Your task to perform on an android device: open app "Lyft - Rideshare, Bikes, Scooters & Transit" (install if not already installed), go to login, and select forgot password Image 0: 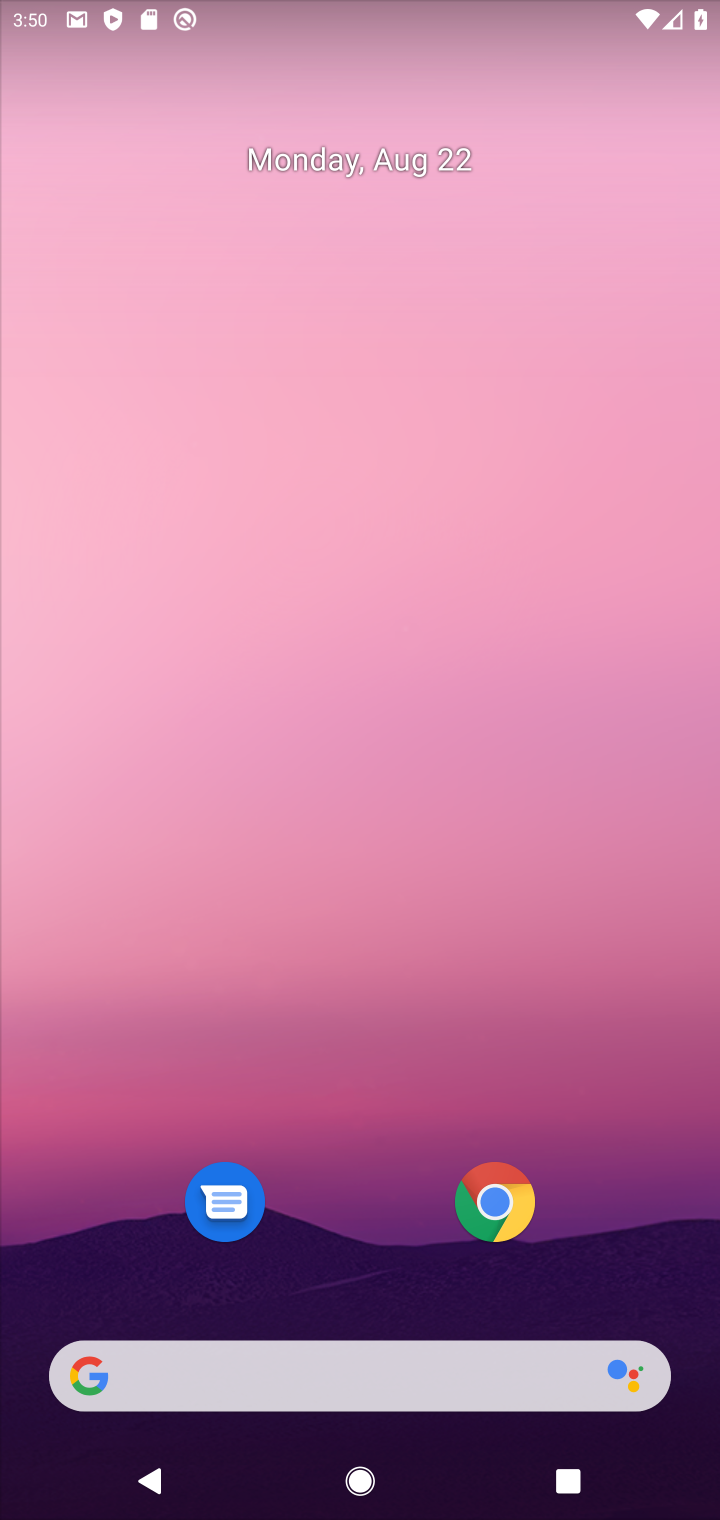
Step 0: drag from (306, 914) to (474, 116)
Your task to perform on an android device: open app "Lyft - Rideshare, Bikes, Scooters & Transit" (install if not already installed), go to login, and select forgot password Image 1: 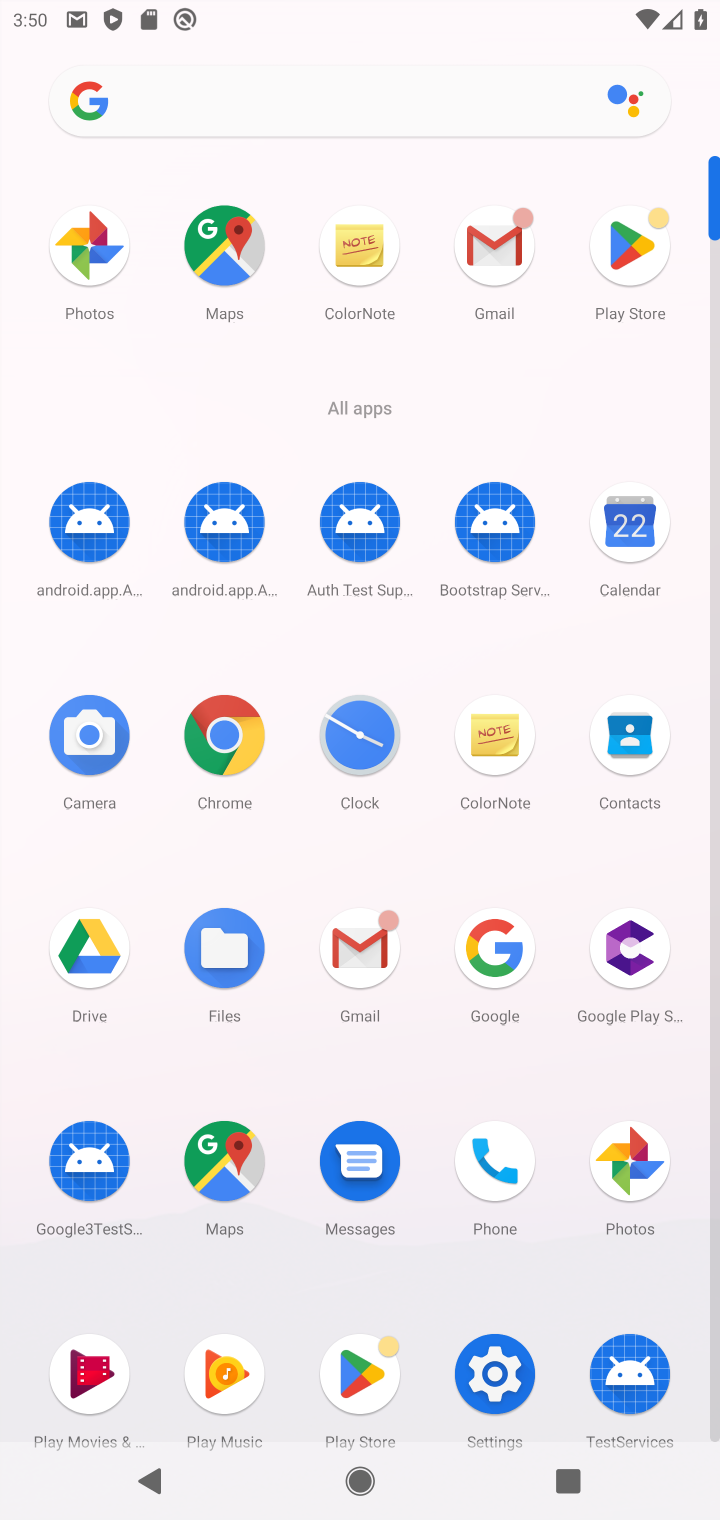
Step 1: click (616, 262)
Your task to perform on an android device: open app "Lyft - Rideshare, Bikes, Scooters & Transit" (install if not already installed), go to login, and select forgot password Image 2: 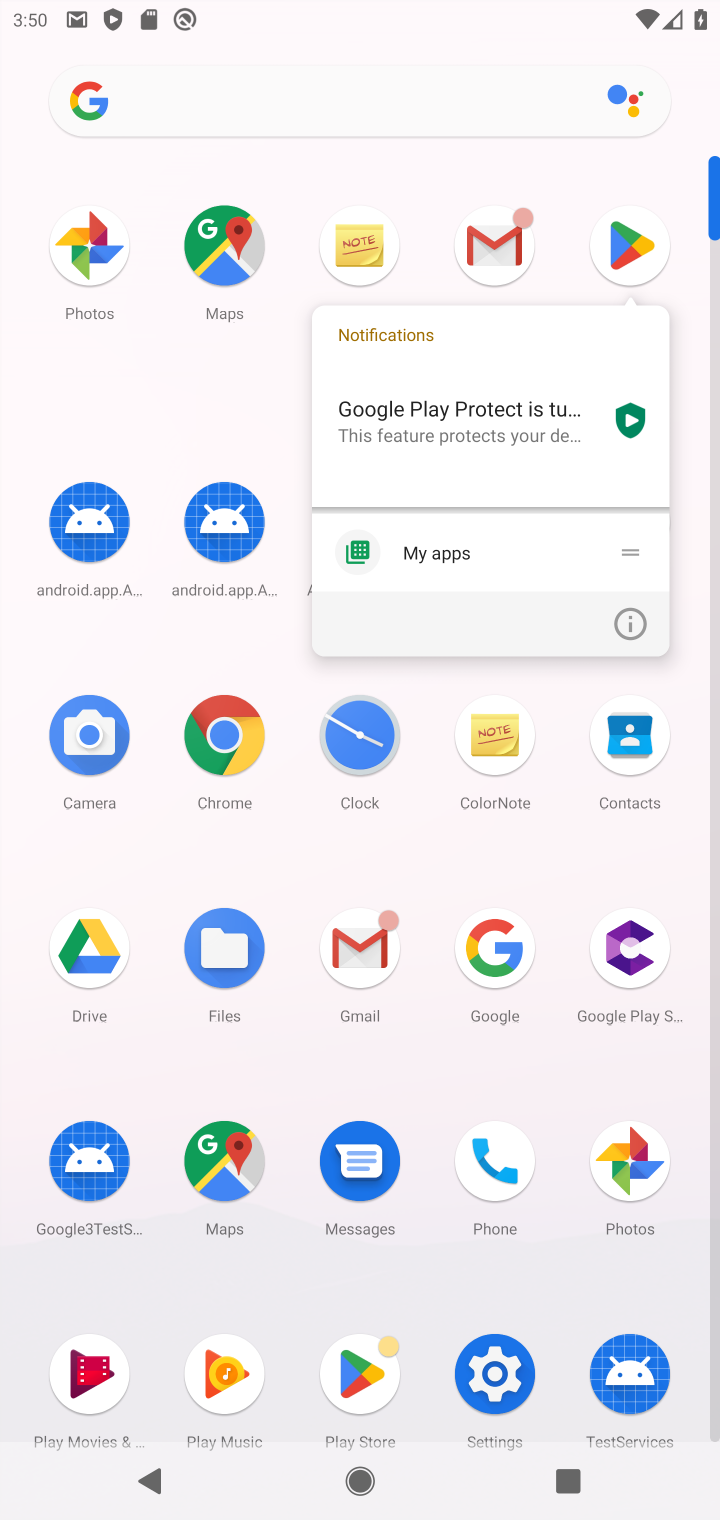
Step 2: click (610, 244)
Your task to perform on an android device: open app "Lyft - Rideshare, Bikes, Scooters & Transit" (install if not already installed), go to login, and select forgot password Image 3: 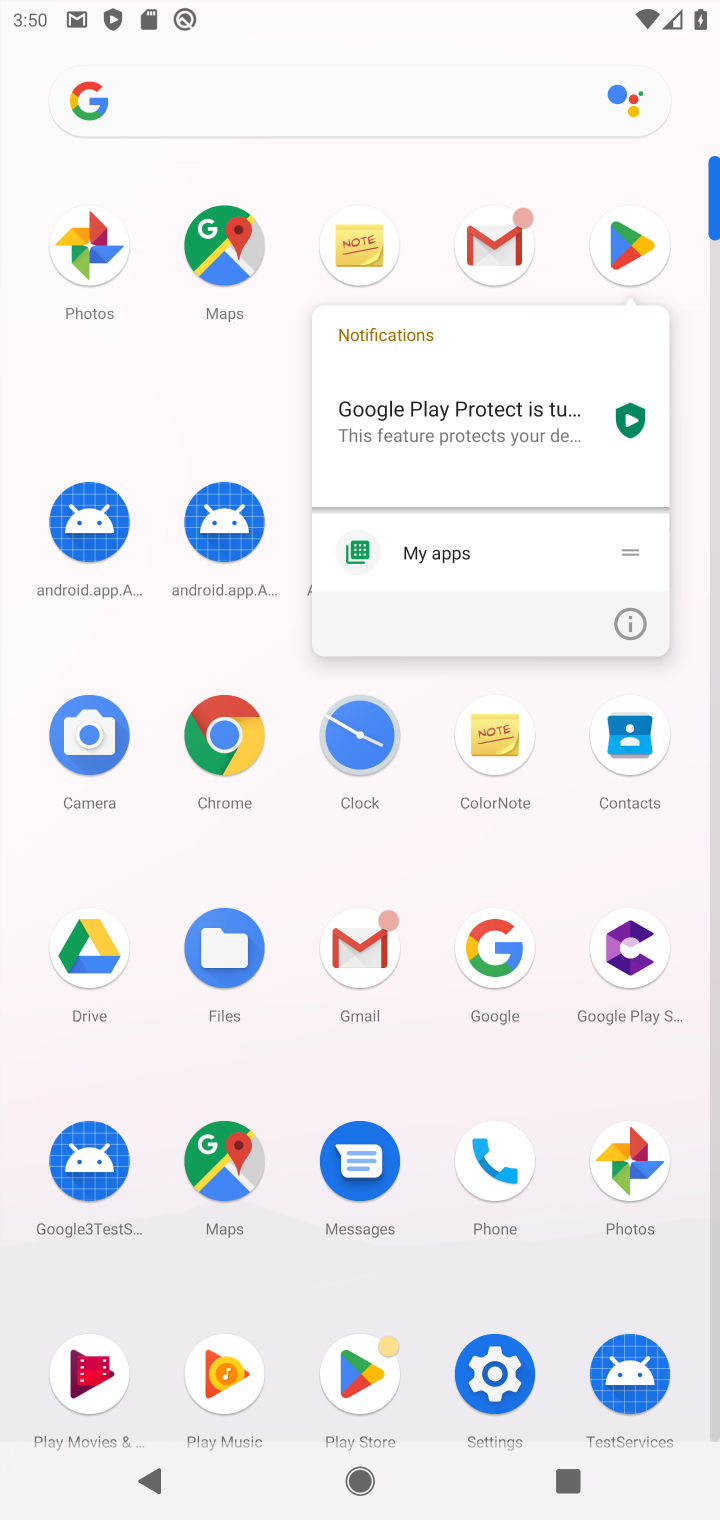
Step 3: click (610, 244)
Your task to perform on an android device: open app "Lyft - Rideshare, Bikes, Scooters & Transit" (install if not already installed), go to login, and select forgot password Image 4: 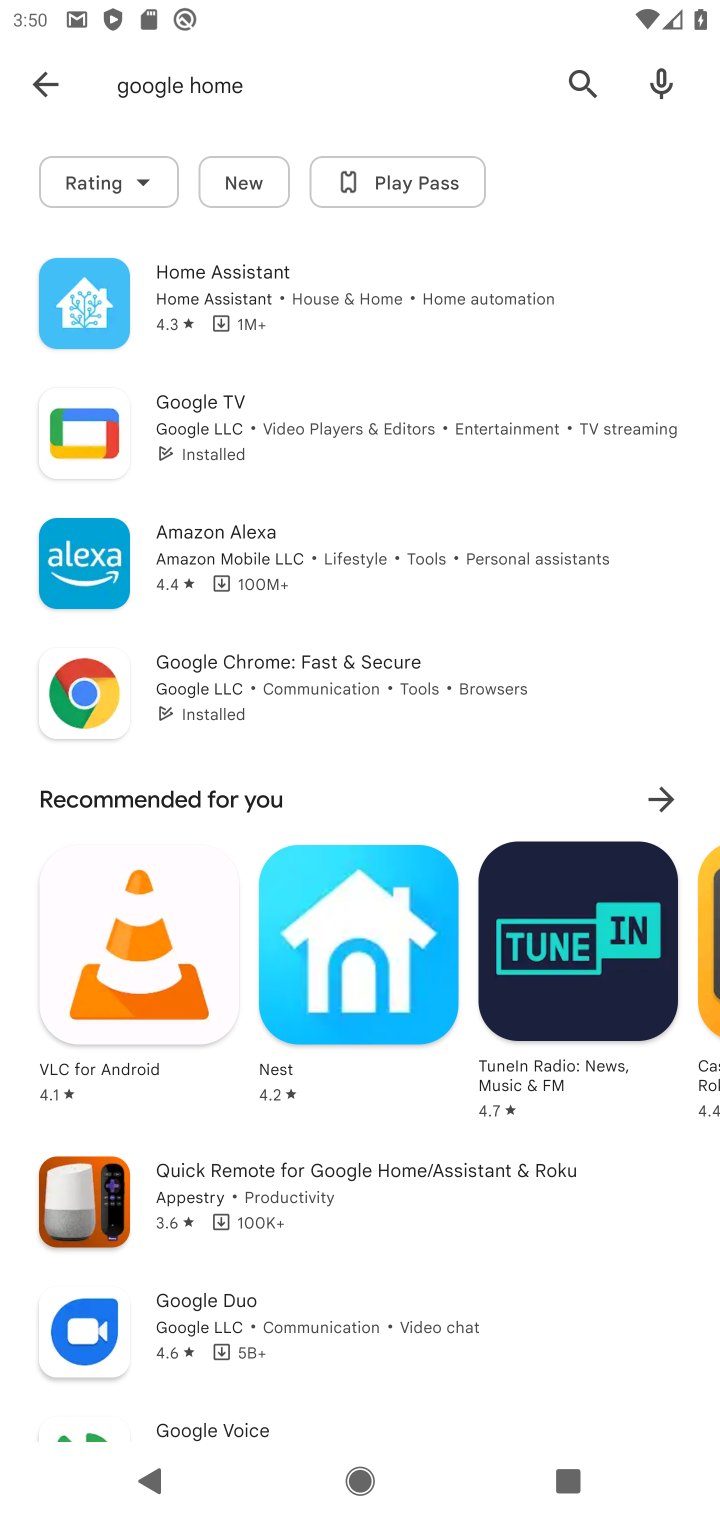
Step 4: click (350, 110)
Your task to perform on an android device: open app "Lyft - Rideshare, Bikes, Scooters & Transit" (install if not already installed), go to login, and select forgot password Image 5: 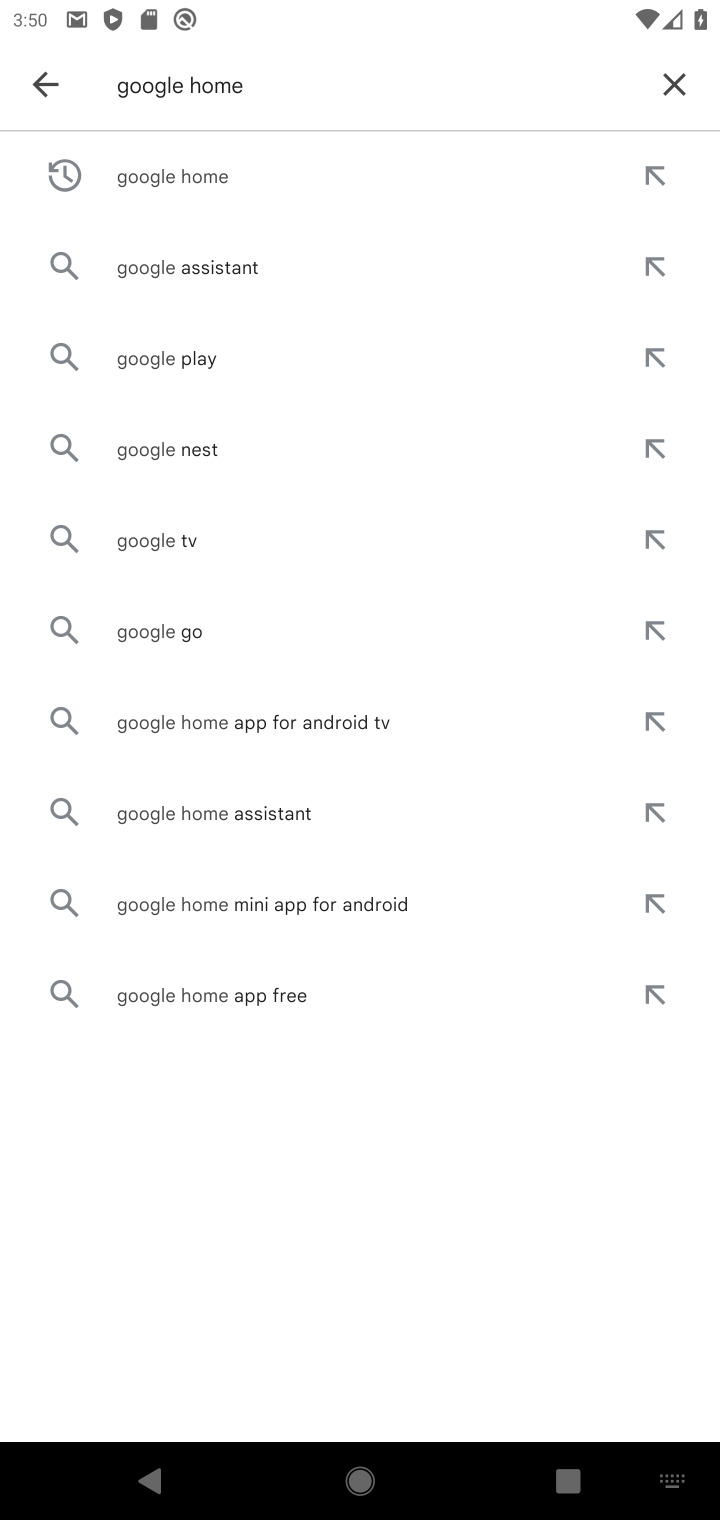
Step 5: click (677, 72)
Your task to perform on an android device: open app "Lyft - Rideshare, Bikes, Scooters & Transit" (install if not already installed), go to login, and select forgot password Image 6: 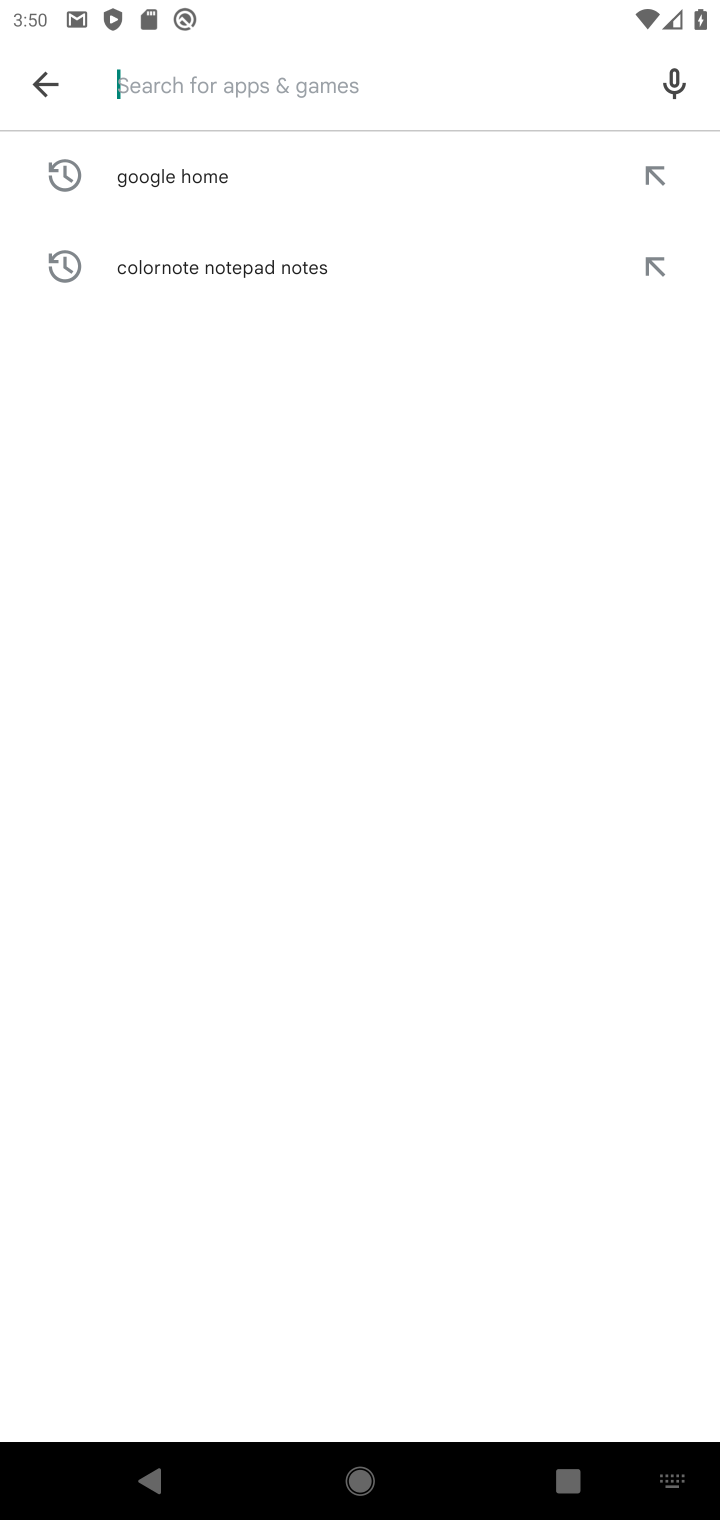
Step 6: type "lyft"
Your task to perform on an android device: open app "Lyft - Rideshare, Bikes, Scooters & Transit" (install if not already installed), go to login, and select forgot password Image 7: 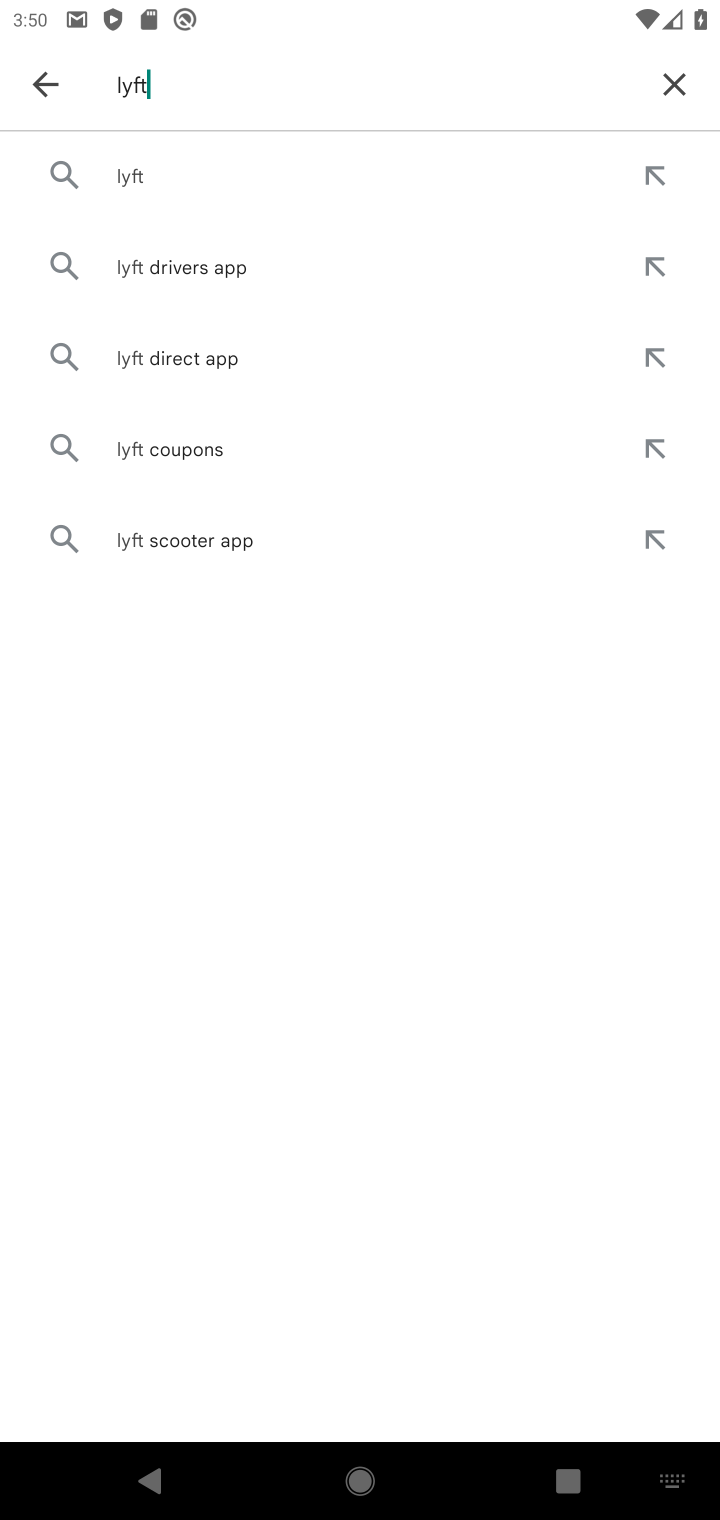
Step 7: click (181, 162)
Your task to perform on an android device: open app "Lyft - Rideshare, Bikes, Scooters & Transit" (install if not already installed), go to login, and select forgot password Image 8: 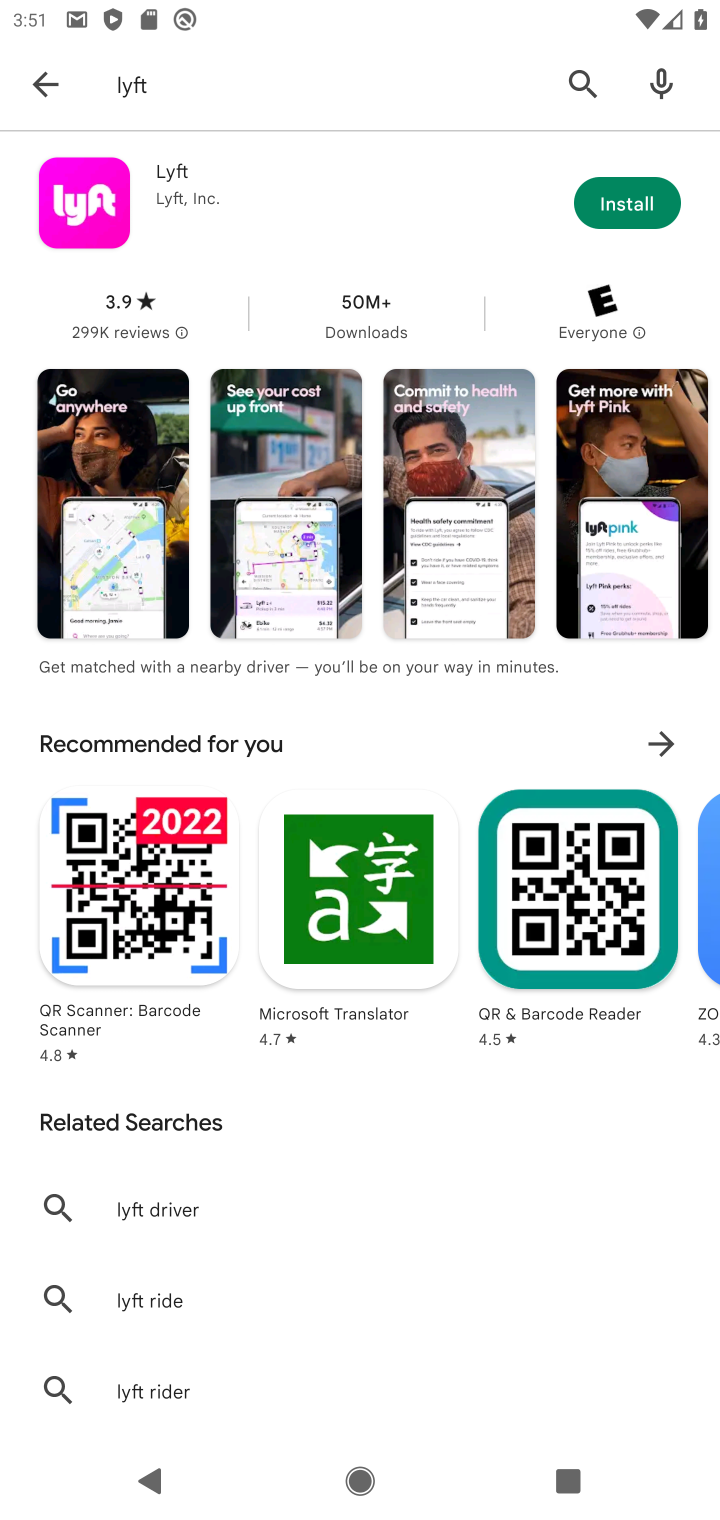
Step 8: click (623, 191)
Your task to perform on an android device: open app "Lyft - Rideshare, Bikes, Scooters & Transit" (install if not already installed), go to login, and select forgot password Image 9: 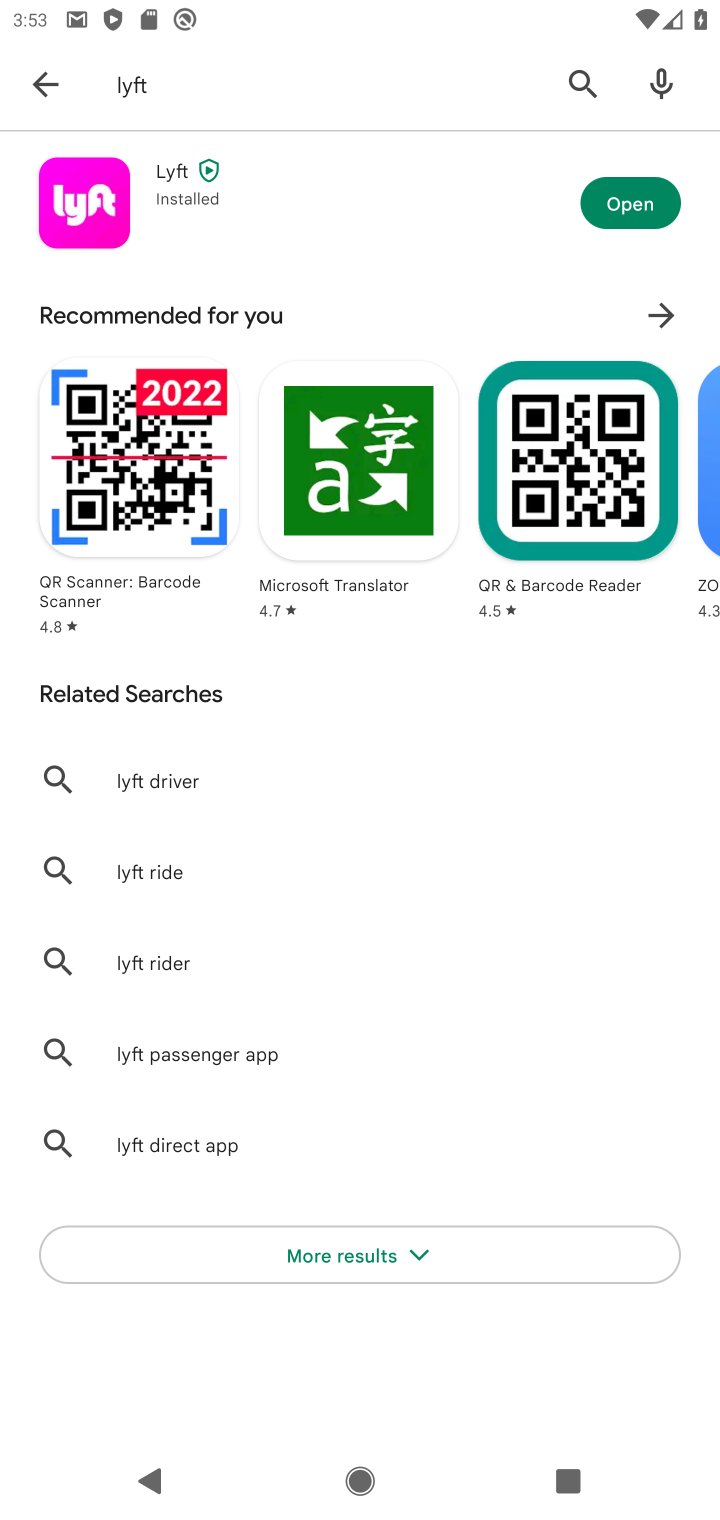
Step 9: click (653, 188)
Your task to perform on an android device: open app "Lyft - Rideshare, Bikes, Scooters & Transit" (install if not already installed), go to login, and select forgot password Image 10: 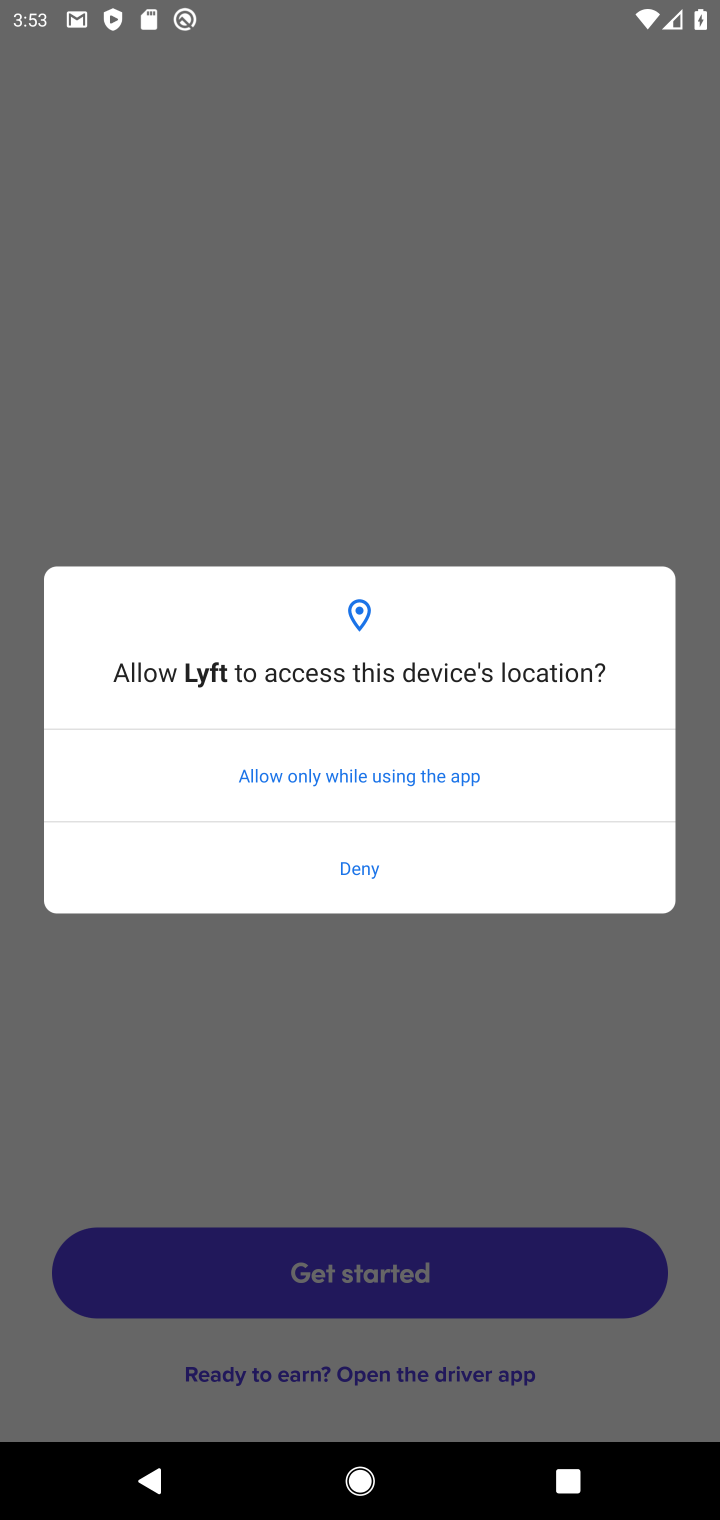
Step 10: click (338, 787)
Your task to perform on an android device: open app "Lyft - Rideshare, Bikes, Scooters & Transit" (install if not already installed), go to login, and select forgot password Image 11: 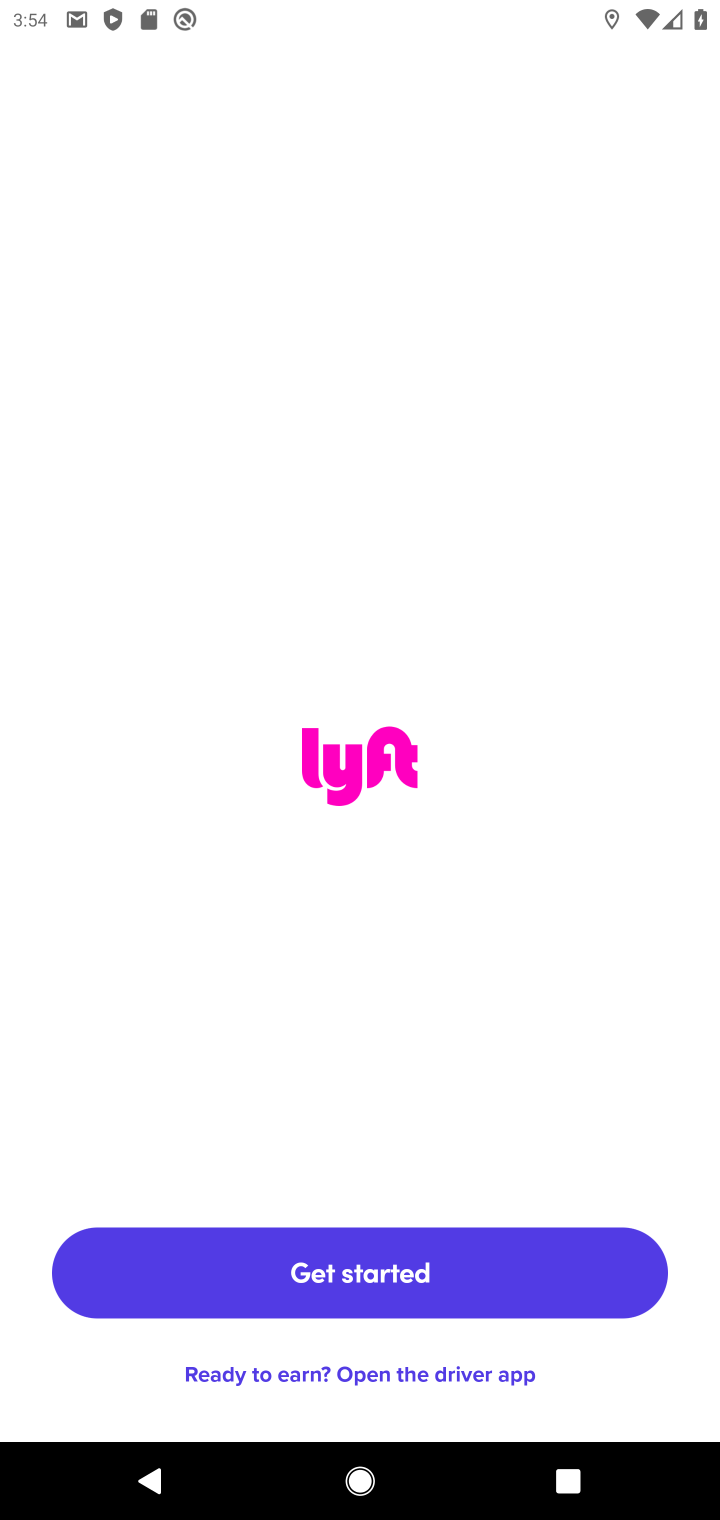
Step 11: click (457, 1279)
Your task to perform on an android device: open app "Lyft - Rideshare, Bikes, Scooters & Transit" (install if not already installed), go to login, and select forgot password Image 12: 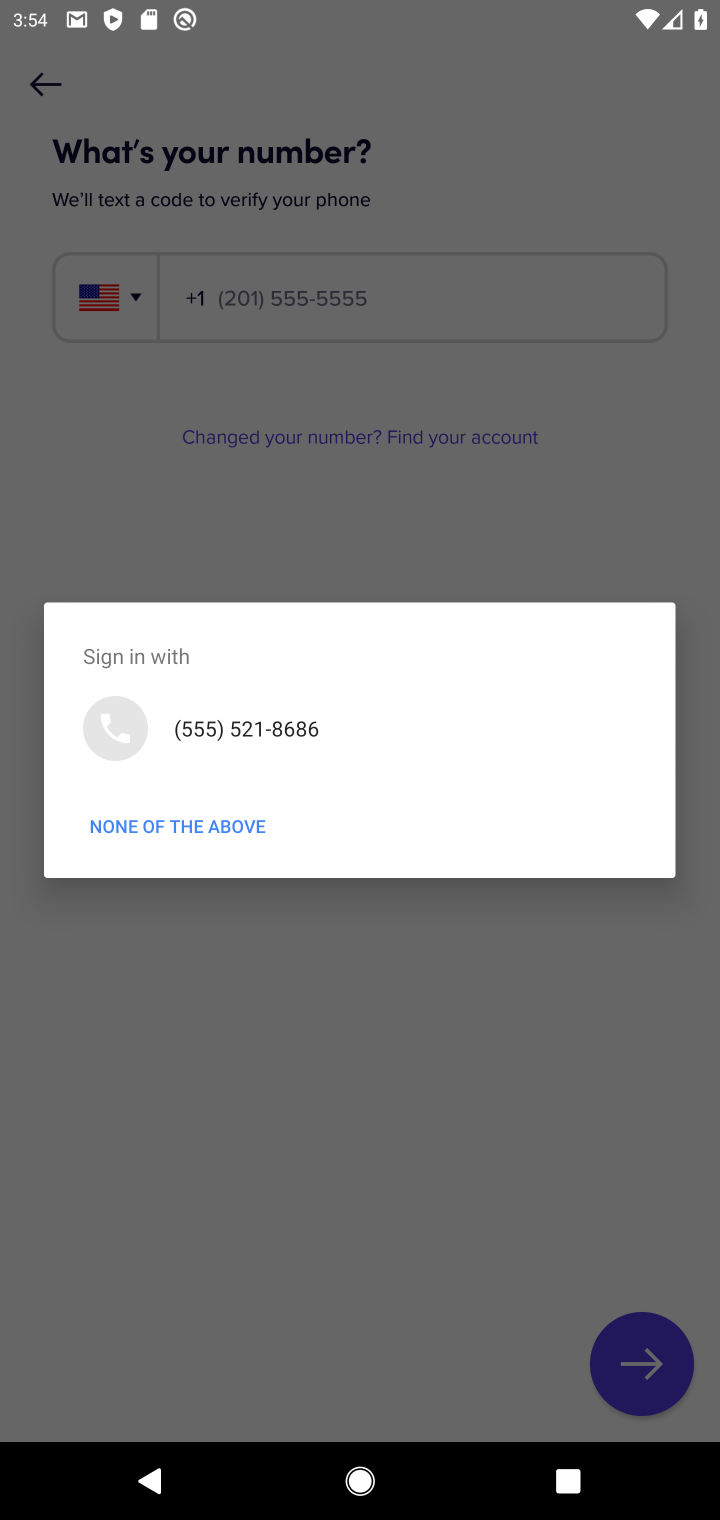
Step 12: click (264, 728)
Your task to perform on an android device: open app "Lyft - Rideshare, Bikes, Scooters & Transit" (install if not already installed), go to login, and select forgot password Image 13: 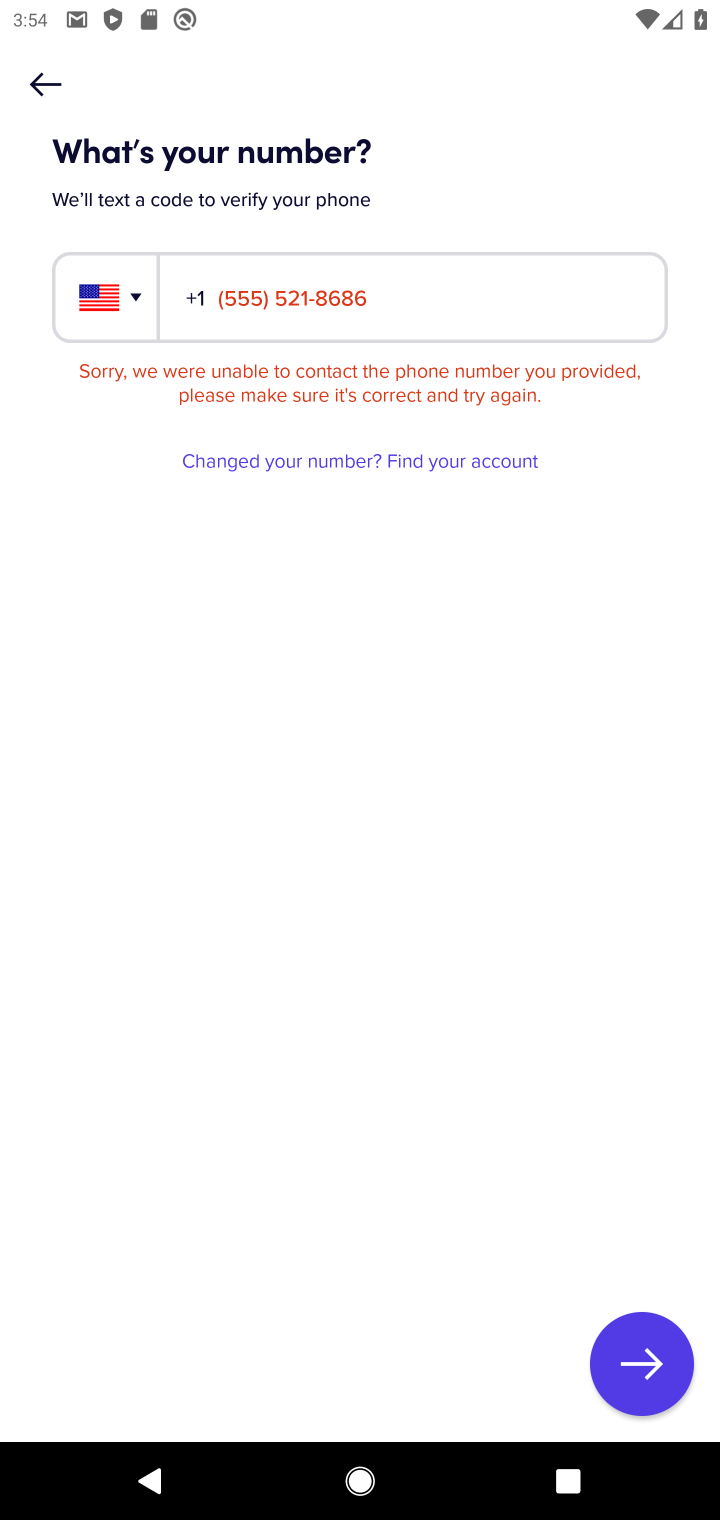
Step 13: click (447, 458)
Your task to perform on an android device: open app "Lyft - Rideshare, Bikes, Scooters & Transit" (install if not already installed), go to login, and select forgot password Image 14: 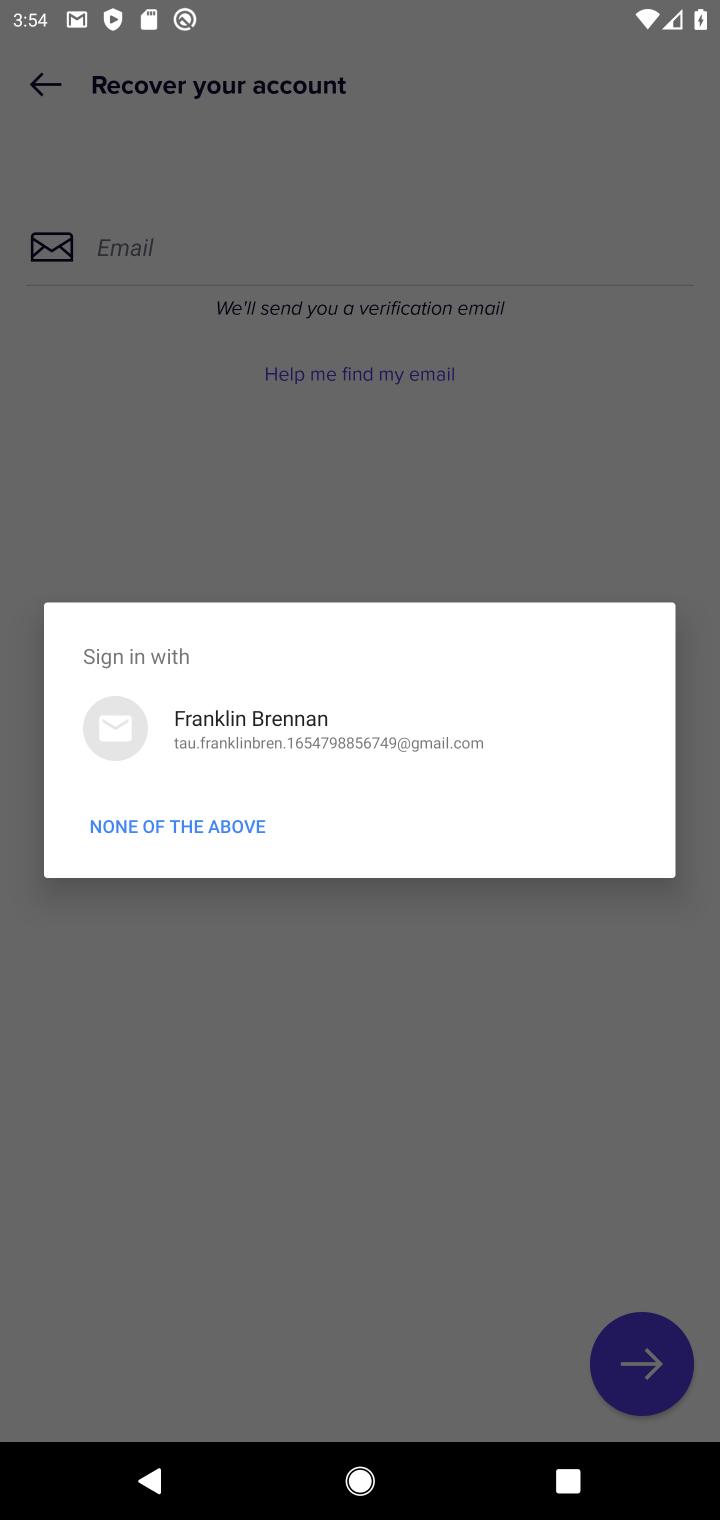
Step 14: click (250, 746)
Your task to perform on an android device: open app "Lyft - Rideshare, Bikes, Scooters & Transit" (install if not already installed), go to login, and select forgot password Image 15: 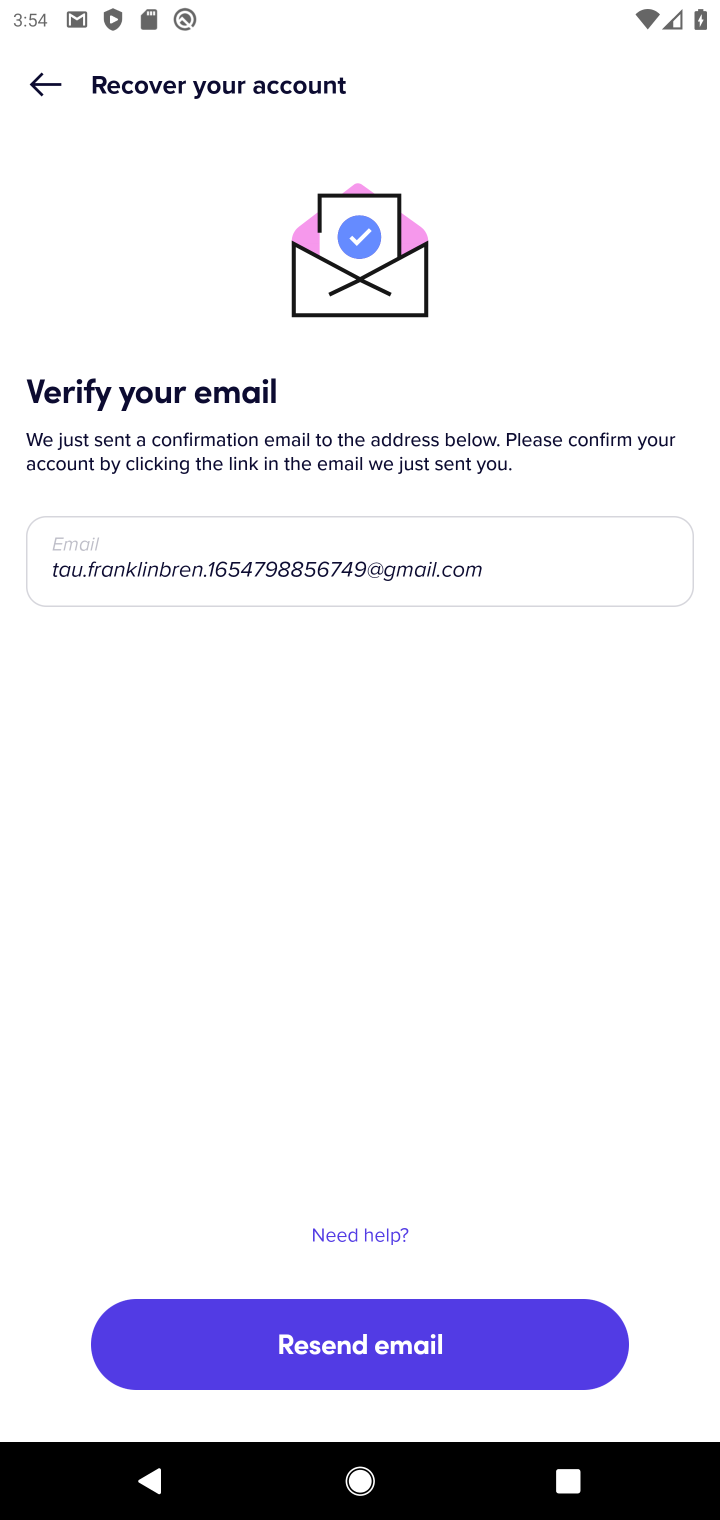
Step 15: task complete